Your task to perform on an android device: What's the weather? Image 0: 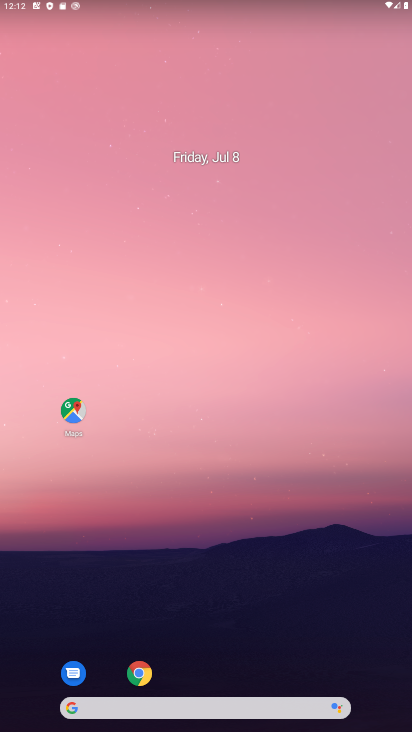
Step 0: drag from (221, 631) to (161, 38)
Your task to perform on an android device: What's the weather? Image 1: 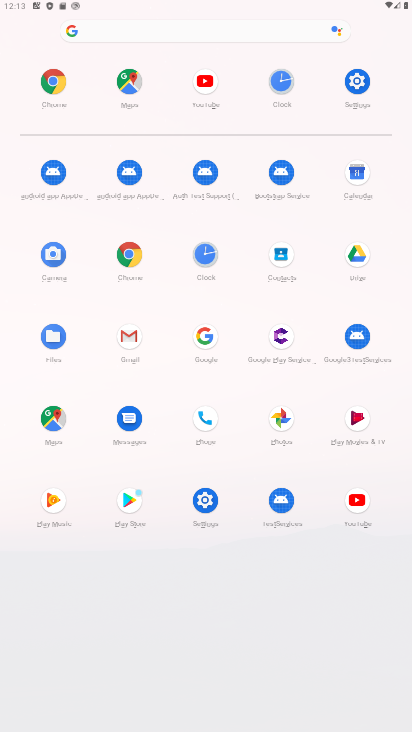
Step 1: click (203, 336)
Your task to perform on an android device: What's the weather? Image 2: 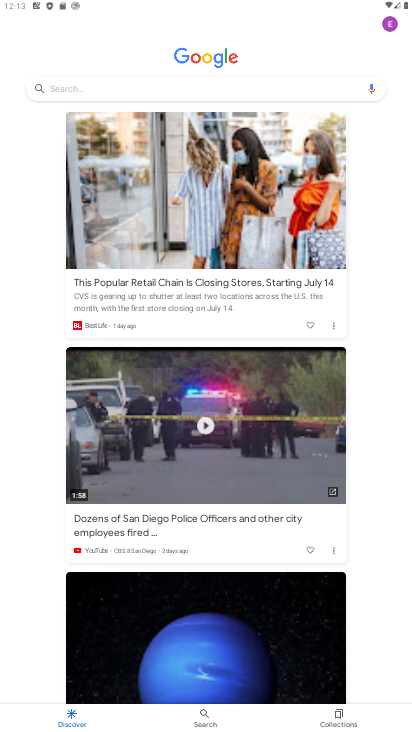
Step 2: click (151, 91)
Your task to perform on an android device: What's the weather? Image 3: 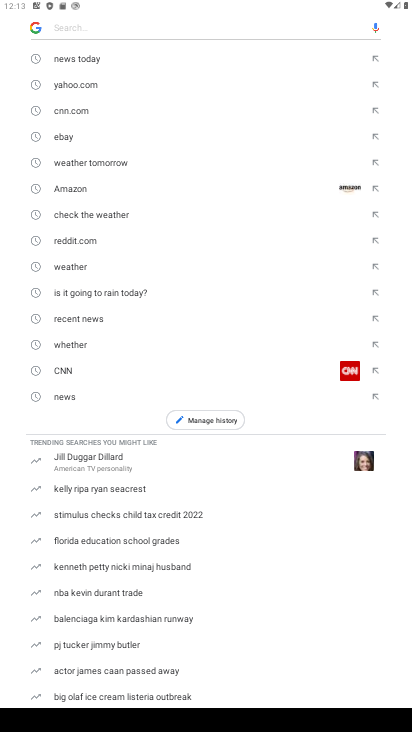
Step 3: type "weather"
Your task to perform on an android device: What's the weather? Image 4: 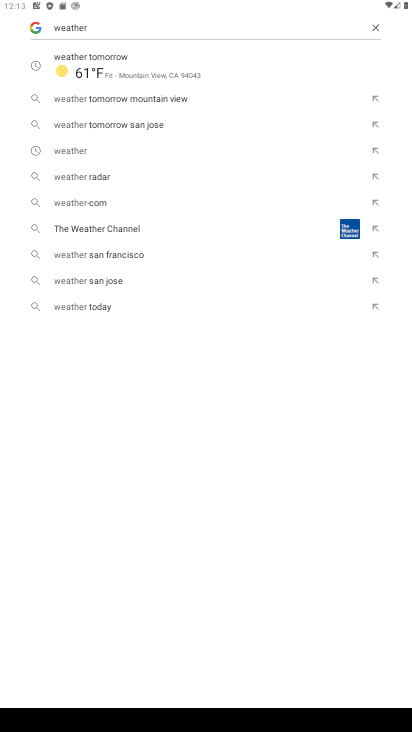
Step 4: click (116, 75)
Your task to perform on an android device: What's the weather? Image 5: 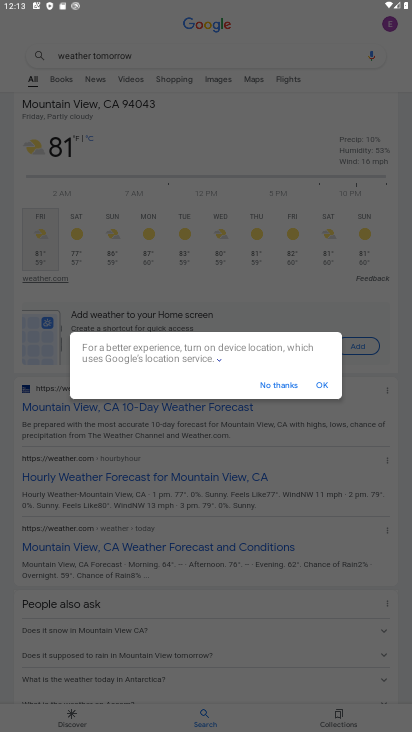
Step 5: click (270, 385)
Your task to perform on an android device: What's the weather? Image 6: 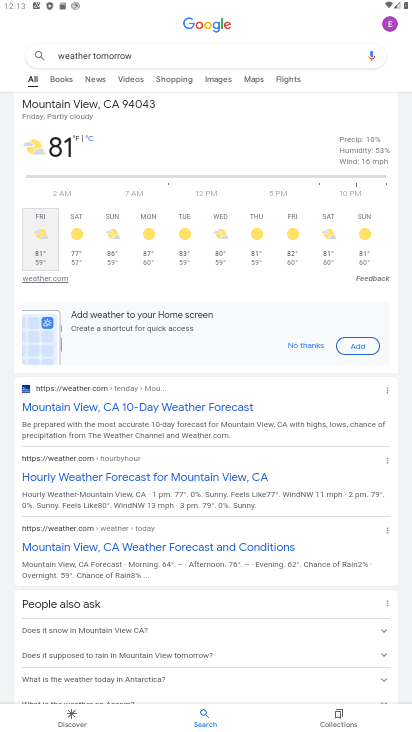
Step 6: task complete